Your task to perform on an android device: Go to internet settings Image 0: 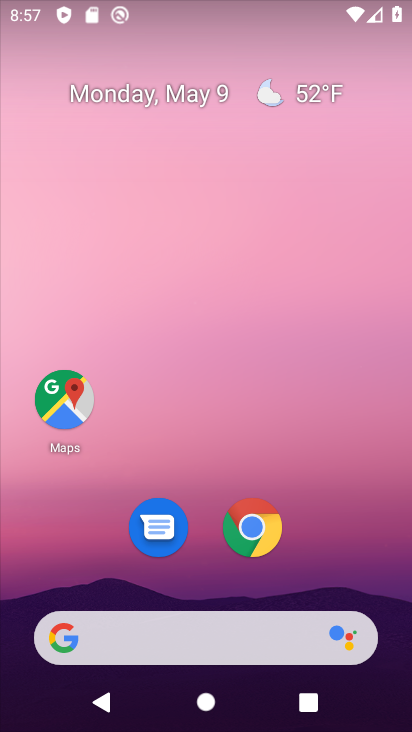
Step 0: drag from (362, 553) to (351, 136)
Your task to perform on an android device: Go to internet settings Image 1: 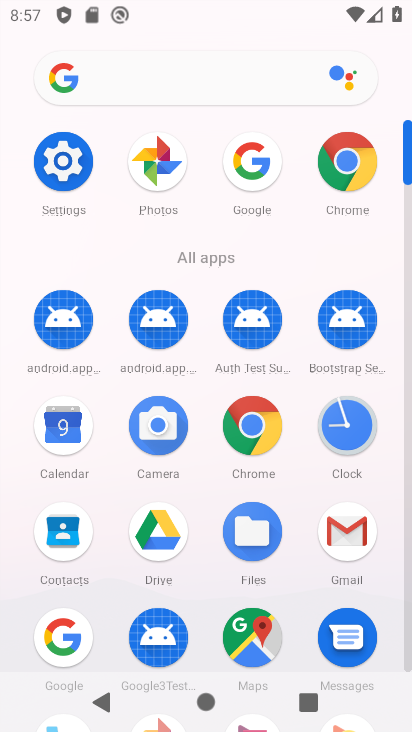
Step 1: click (63, 168)
Your task to perform on an android device: Go to internet settings Image 2: 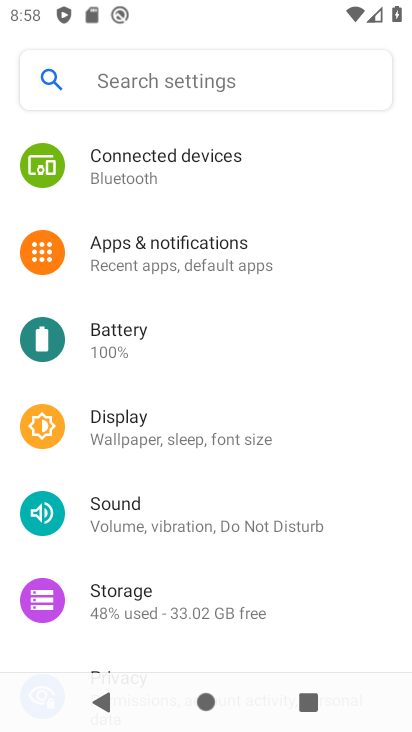
Step 2: drag from (213, 165) to (291, 465)
Your task to perform on an android device: Go to internet settings Image 3: 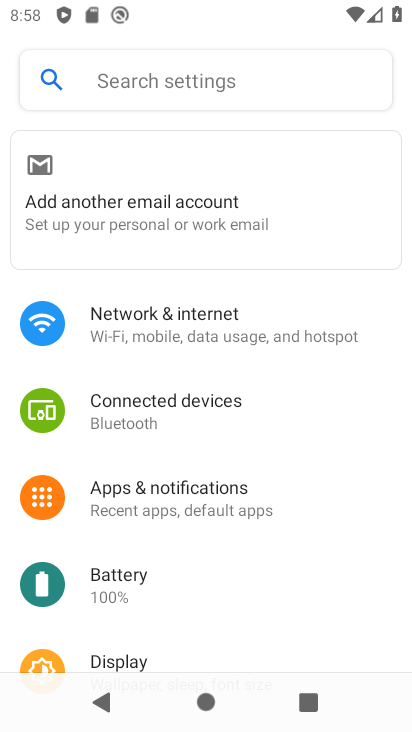
Step 3: click (218, 313)
Your task to perform on an android device: Go to internet settings Image 4: 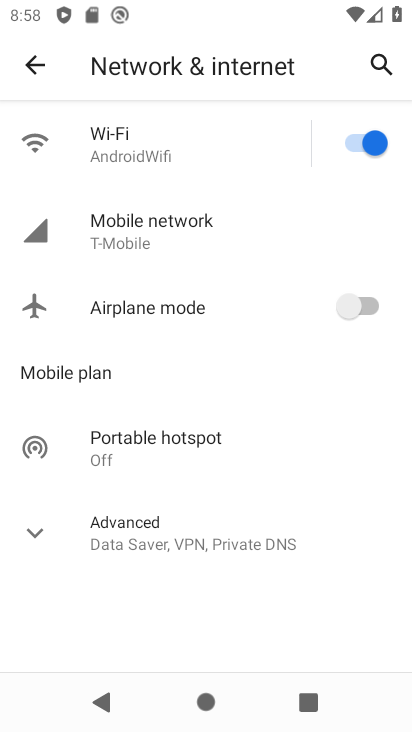
Step 4: click (160, 222)
Your task to perform on an android device: Go to internet settings Image 5: 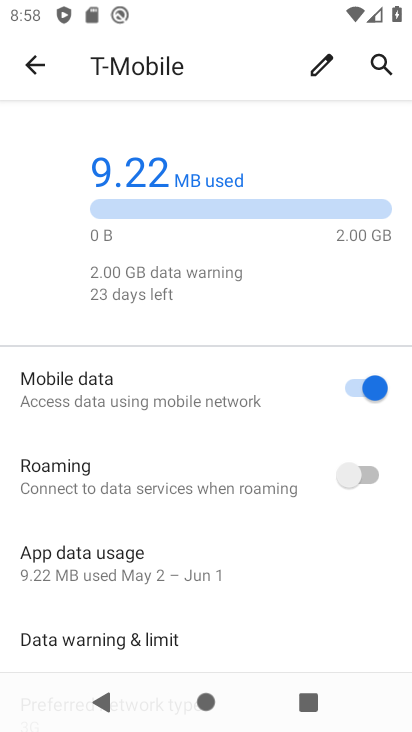
Step 5: drag from (146, 537) to (175, 184)
Your task to perform on an android device: Go to internet settings Image 6: 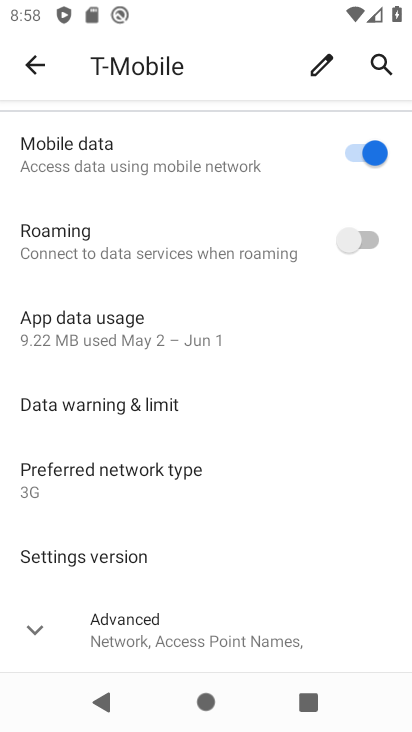
Step 6: click (15, 621)
Your task to perform on an android device: Go to internet settings Image 7: 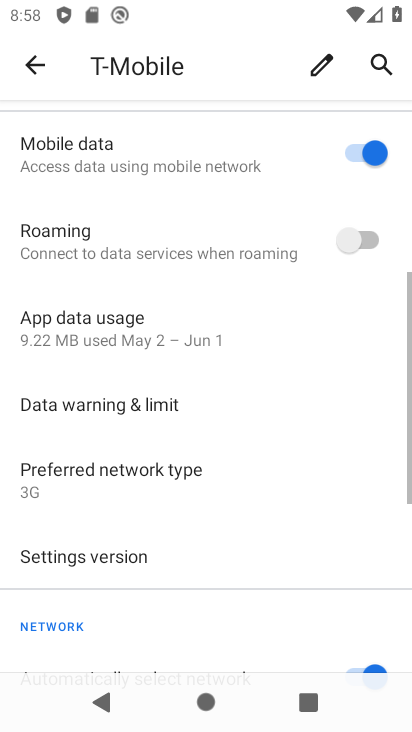
Step 7: task complete